Your task to perform on an android device: add a contact in the contacts app Image 0: 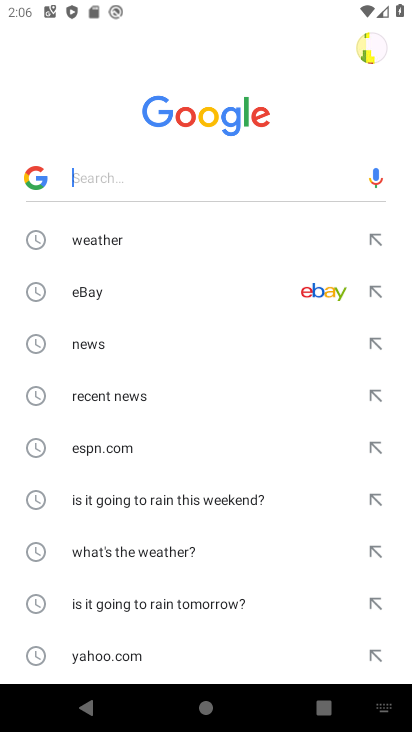
Step 0: press home button
Your task to perform on an android device: add a contact in the contacts app Image 1: 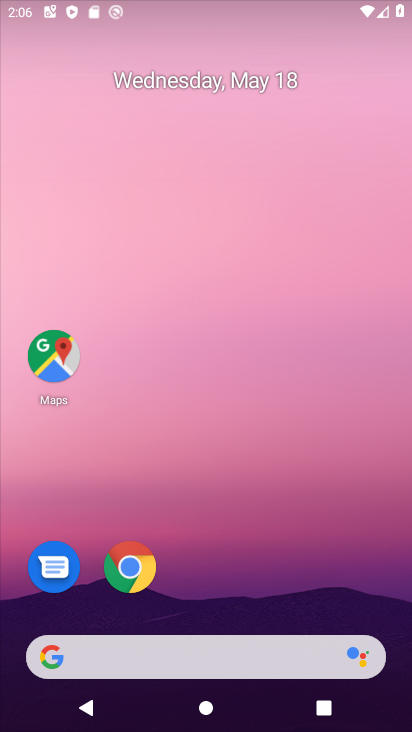
Step 1: drag from (231, 475) to (246, 238)
Your task to perform on an android device: add a contact in the contacts app Image 2: 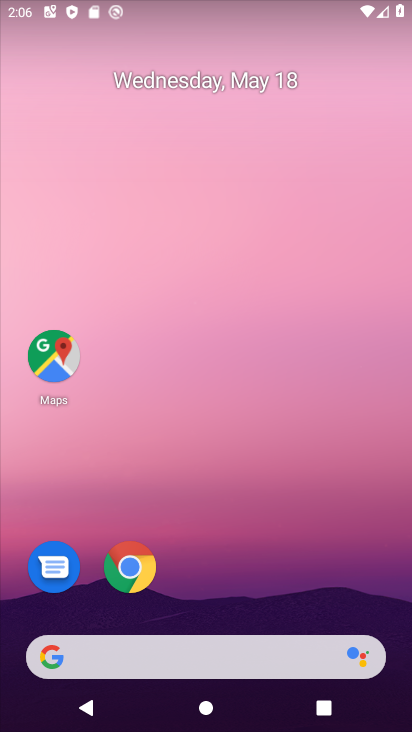
Step 2: drag from (234, 590) to (269, 219)
Your task to perform on an android device: add a contact in the contacts app Image 3: 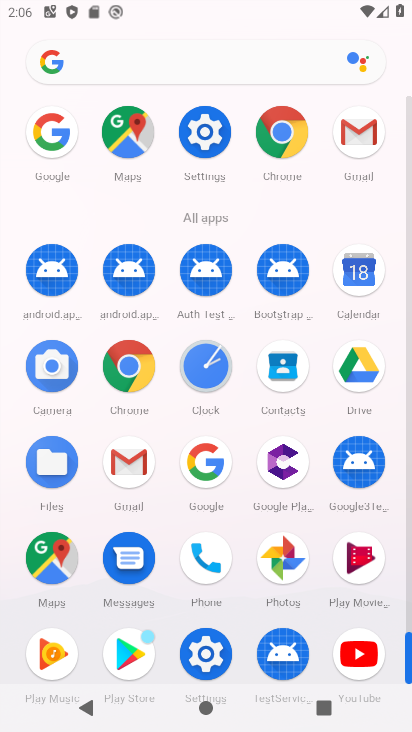
Step 3: click (175, 556)
Your task to perform on an android device: add a contact in the contacts app Image 4: 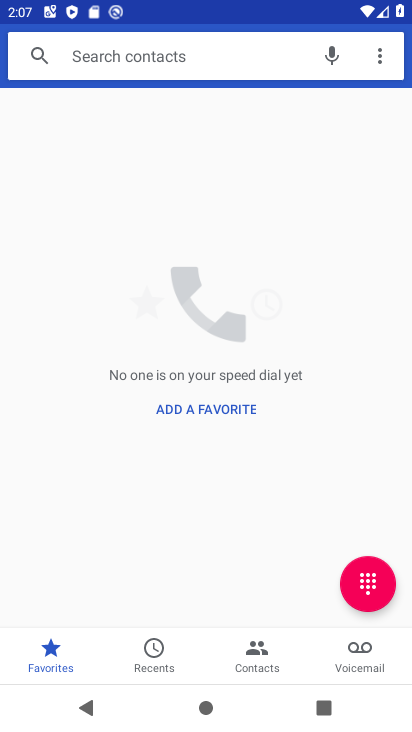
Step 4: click (199, 413)
Your task to perform on an android device: add a contact in the contacts app Image 5: 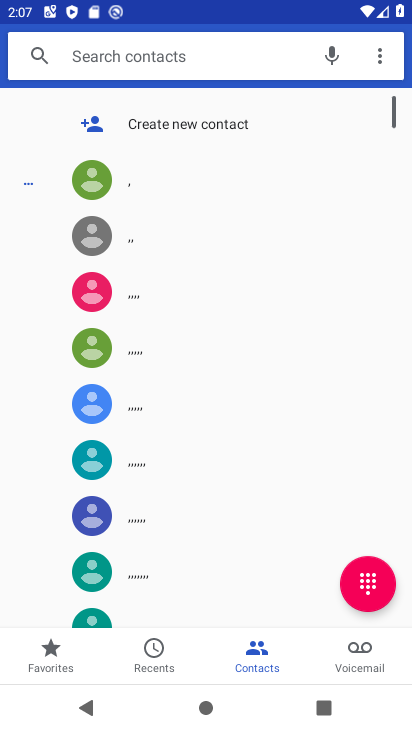
Step 5: click (189, 112)
Your task to perform on an android device: add a contact in the contacts app Image 6: 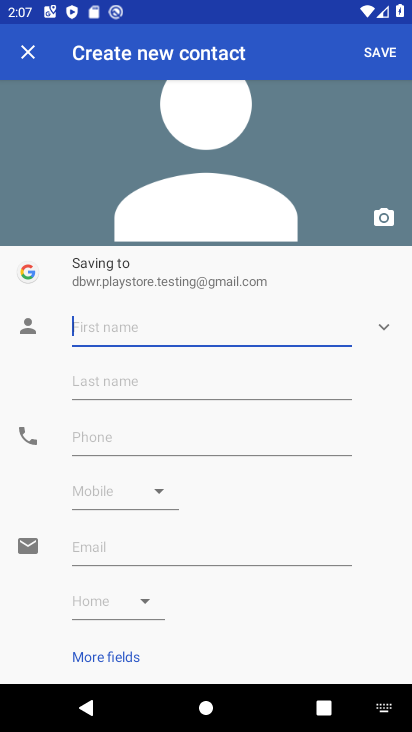
Step 6: click (153, 332)
Your task to perform on an android device: add a contact in the contacts app Image 7: 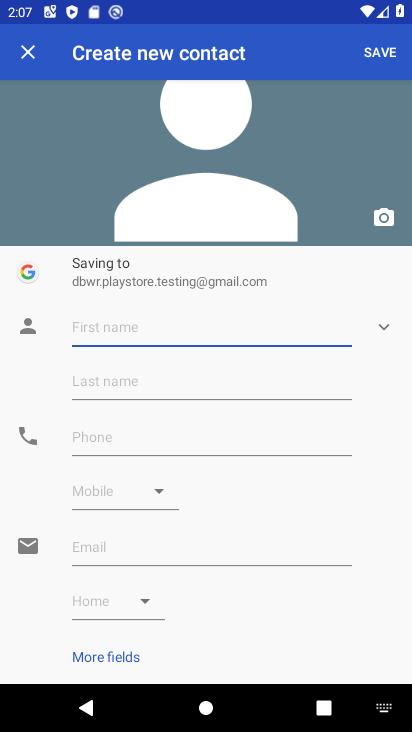
Step 7: type "kjkjkjjj"
Your task to perform on an android device: add a contact in the contacts app Image 8: 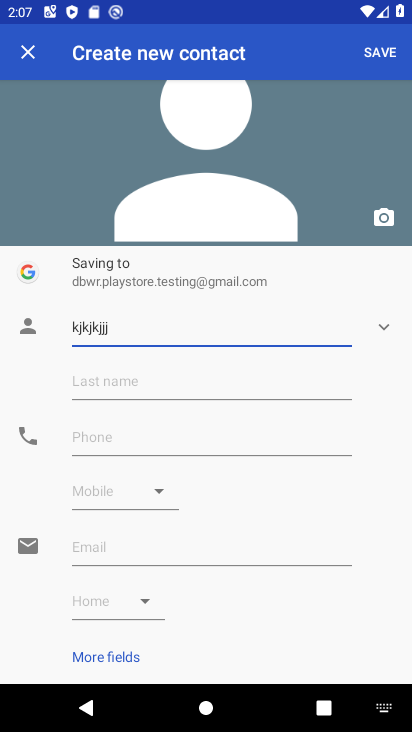
Step 8: click (153, 438)
Your task to perform on an android device: add a contact in the contacts app Image 9: 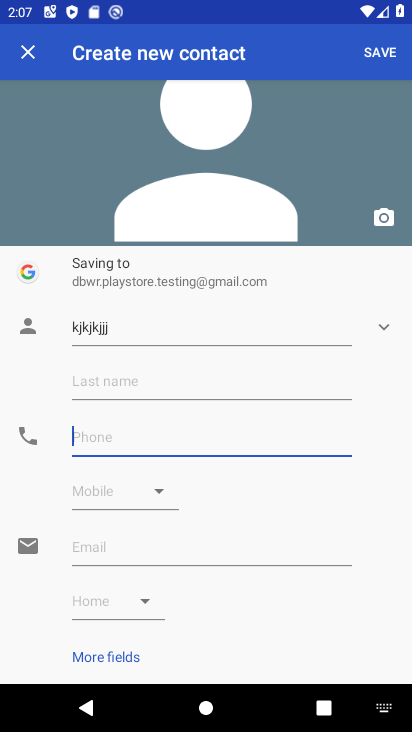
Step 9: type "000000"
Your task to perform on an android device: add a contact in the contacts app Image 10: 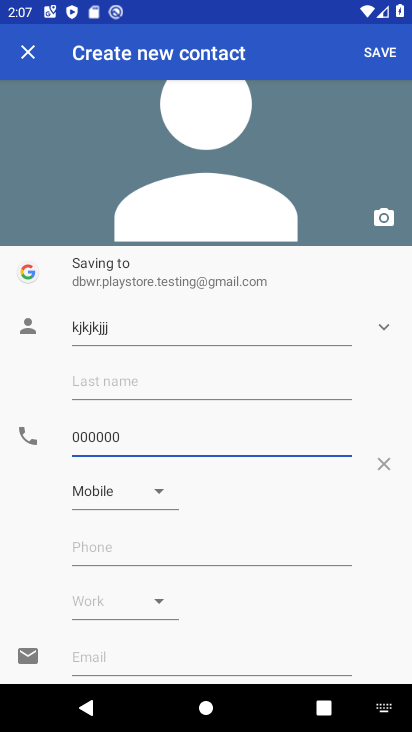
Step 10: click (404, 45)
Your task to perform on an android device: add a contact in the contacts app Image 11: 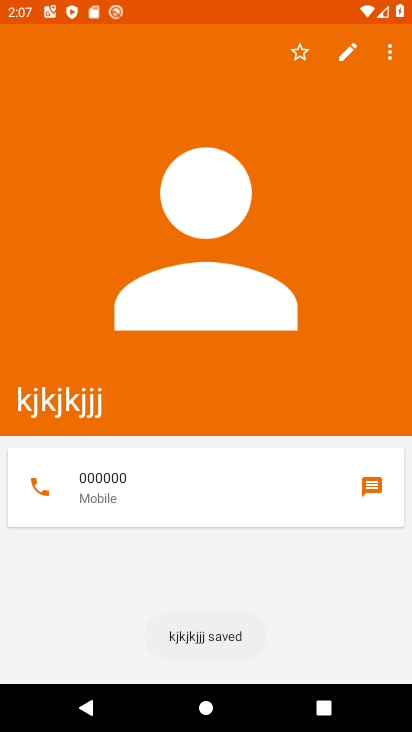
Step 11: task complete